Your task to perform on an android device: toggle show notifications on the lock screen Image 0: 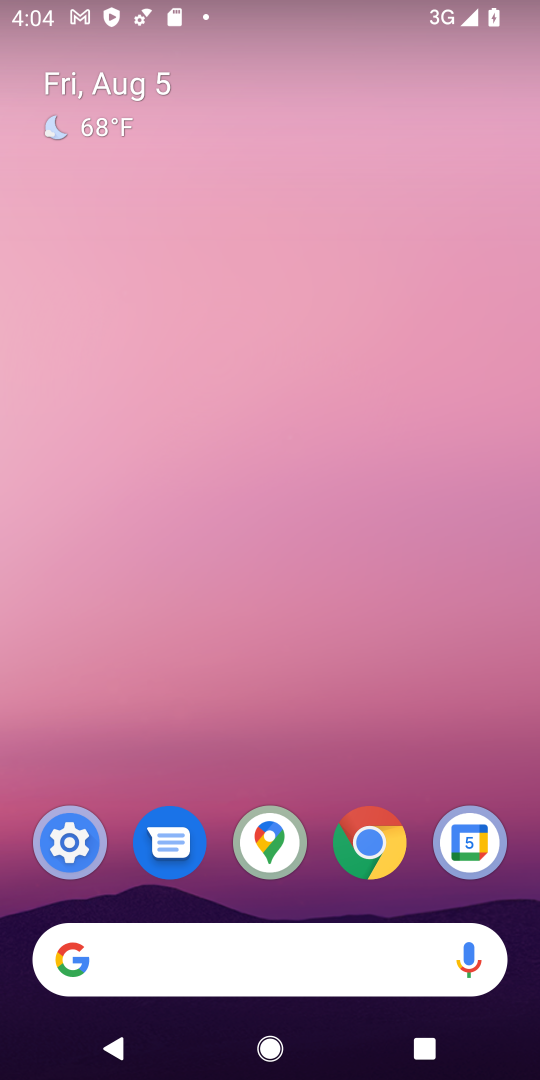
Step 0: drag from (331, 777) to (355, 200)
Your task to perform on an android device: toggle show notifications on the lock screen Image 1: 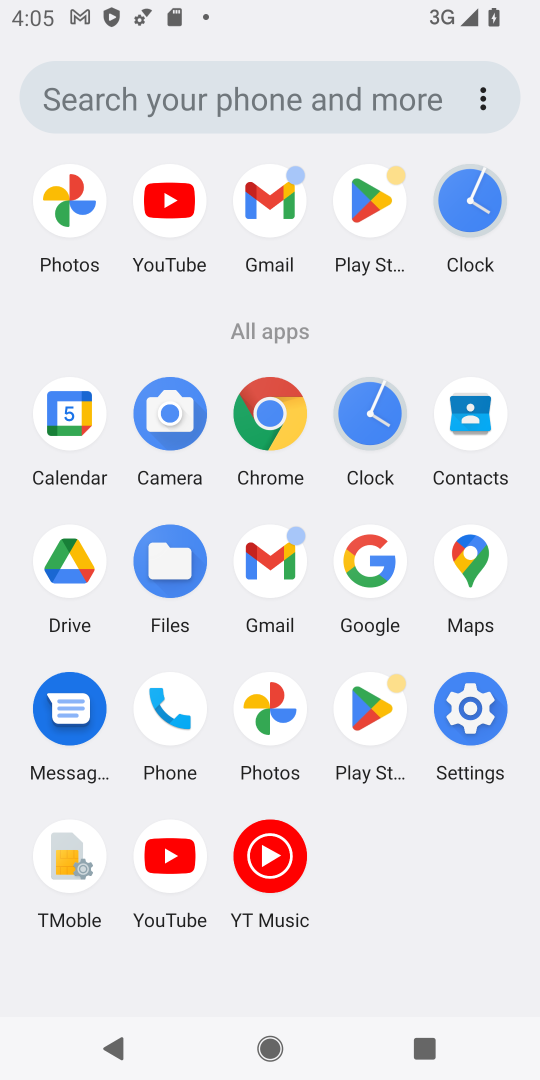
Step 1: click (486, 715)
Your task to perform on an android device: toggle show notifications on the lock screen Image 2: 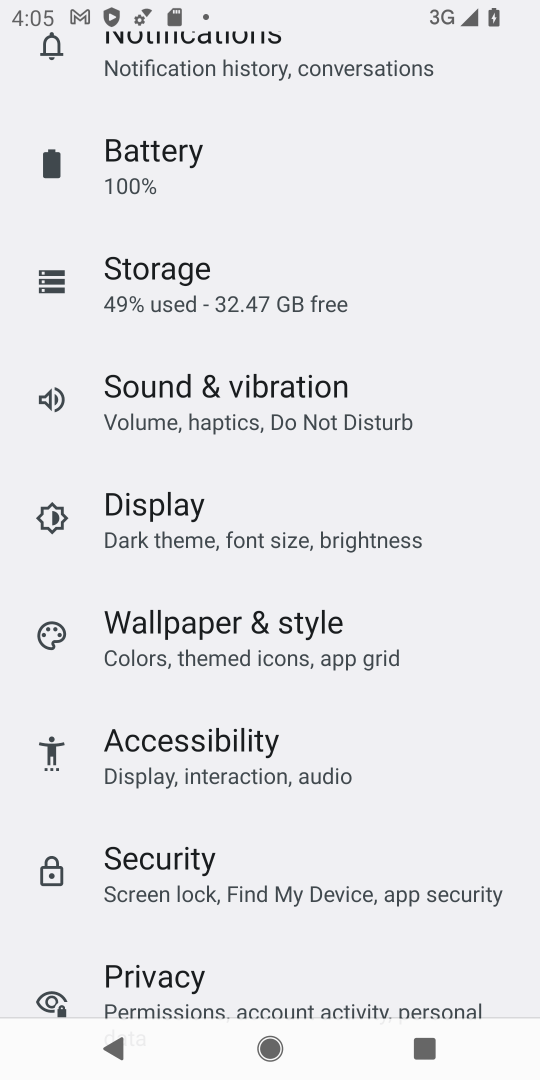
Step 2: click (192, 54)
Your task to perform on an android device: toggle show notifications on the lock screen Image 3: 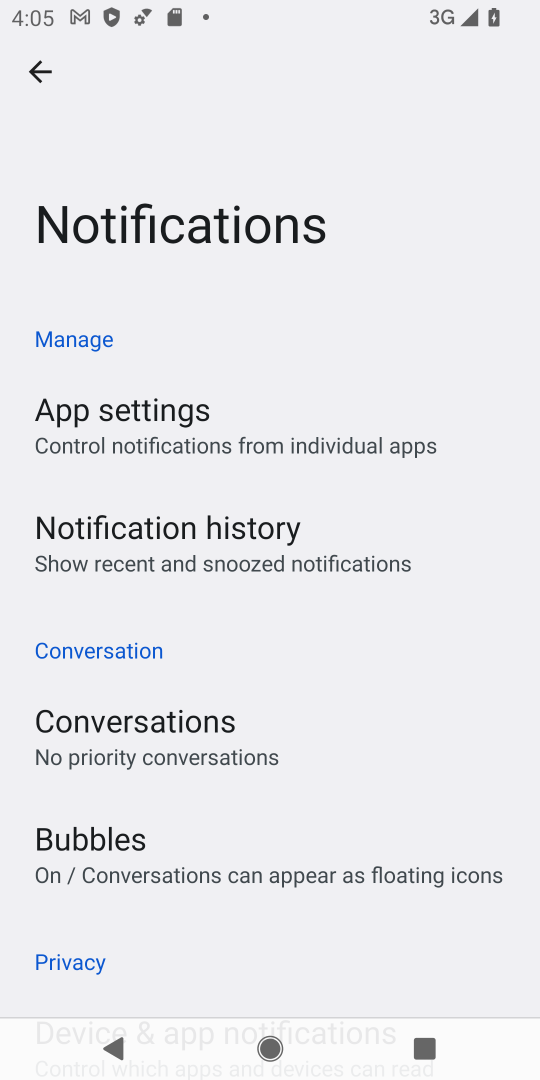
Step 3: drag from (385, 913) to (312, 478)
Your task to perform on an android device: toggle show notifications on the lock screen Image 4: 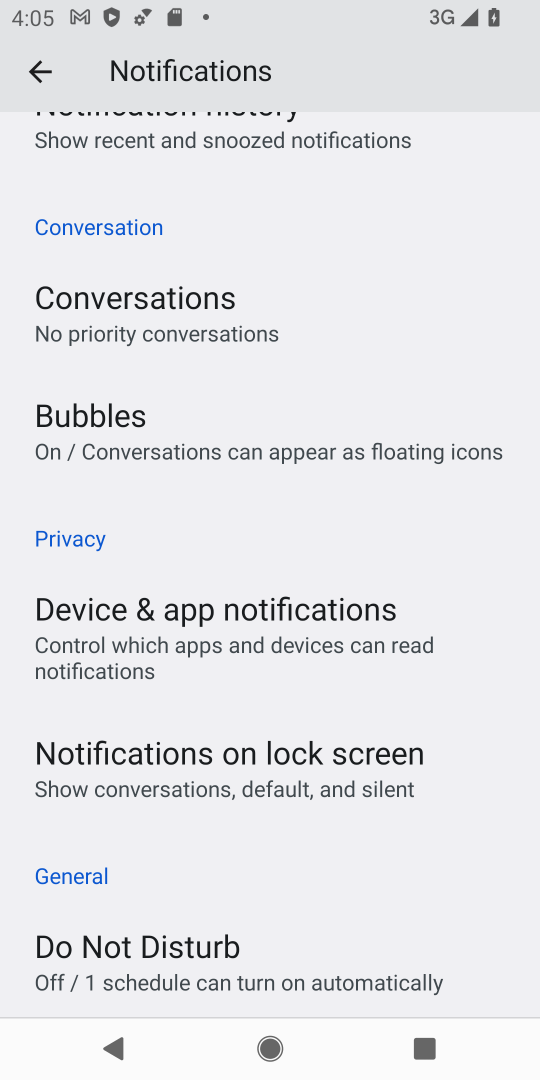
Step 4: click (269, 788)
Your task to perform on an android device: toggle show notifications on the lock screen Image 5: 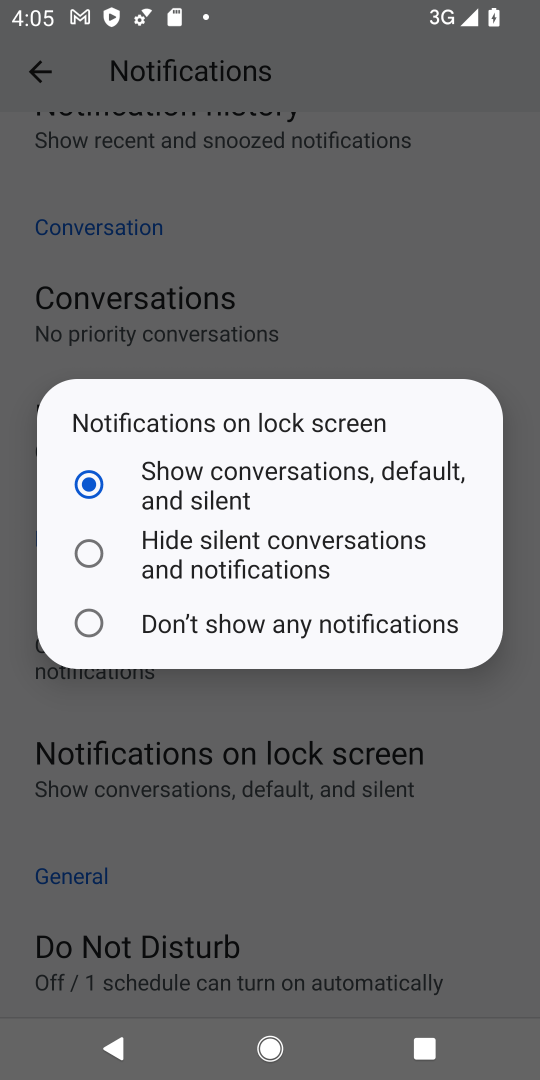
Step 5: click (159, 620)
Your task to perform on an android device: toggle show notifications on the lock screen Image 6: 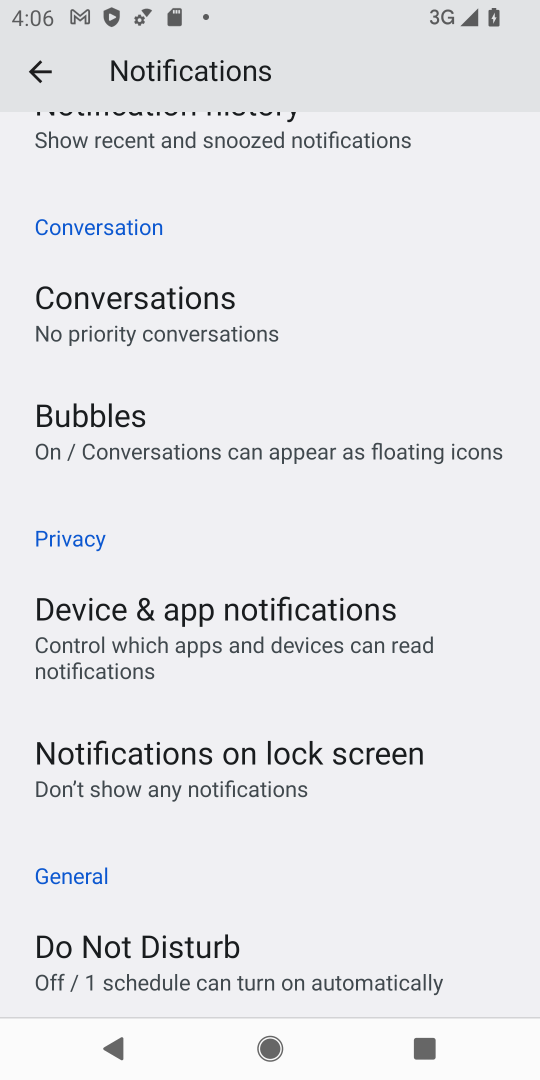
Step 6: task complete